Your task to perform on an android device: choose inbox layout in the gmail app Image 0: 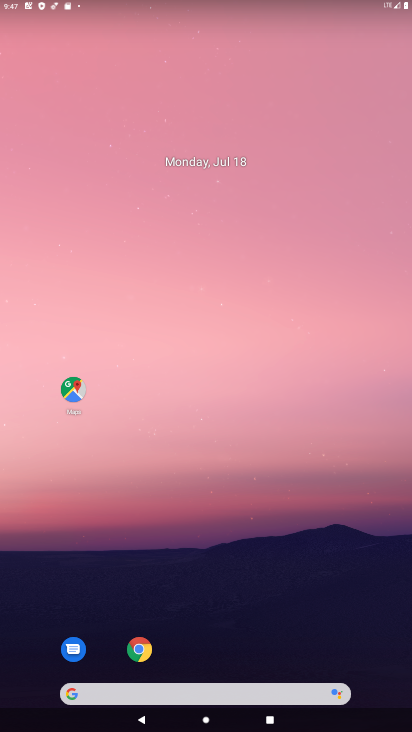
Step 0: drag from (213, 721) to (146, 83)
Your task to perform on an android device: choose inbox layout in the gmail app Image 1: 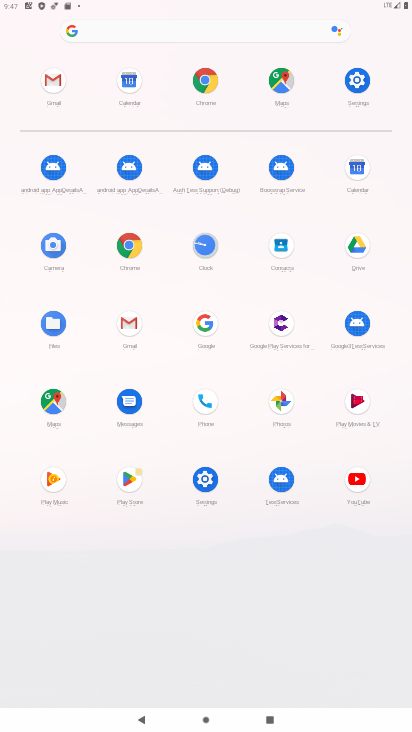
Step 1: click (54, 85)
Your task to perform on an android device: choose inbox layout in the gmail app Image 2: 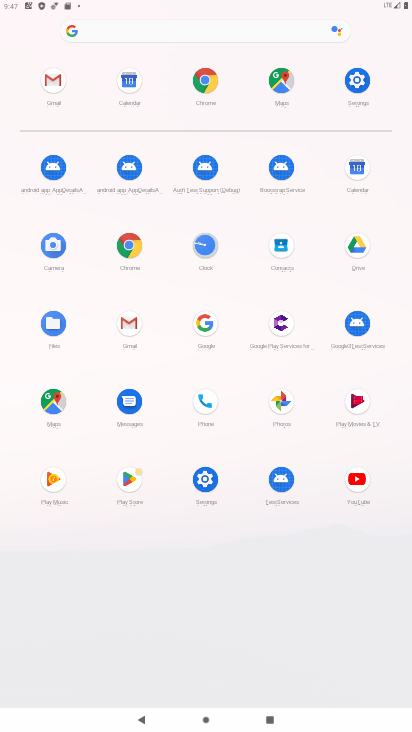
Step 2: click (54, 85)
Your task to perform on an android device: choose inbox layout in the gmail app Image 3: 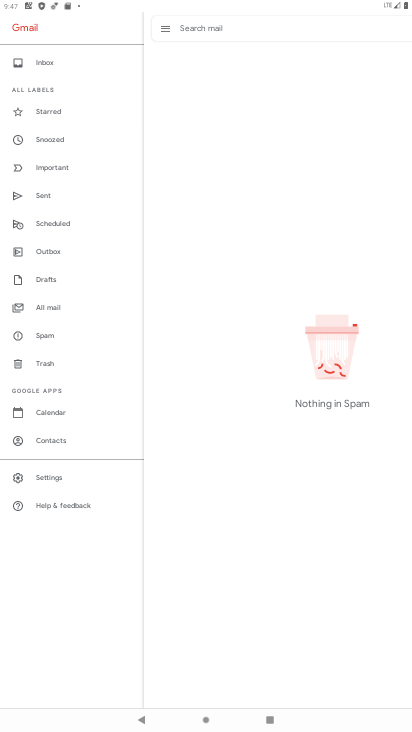
Step 3: click (51, 474)
Your task to perform on an android device: choose inbox layout in the gmail app Image 4: 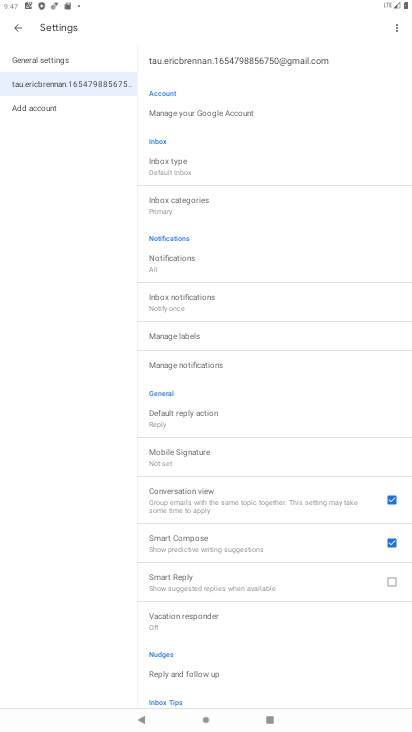
Step 4: click (173, 164)
Your task to perform on an android device: choose inbox layout in the gmail app Image 5: 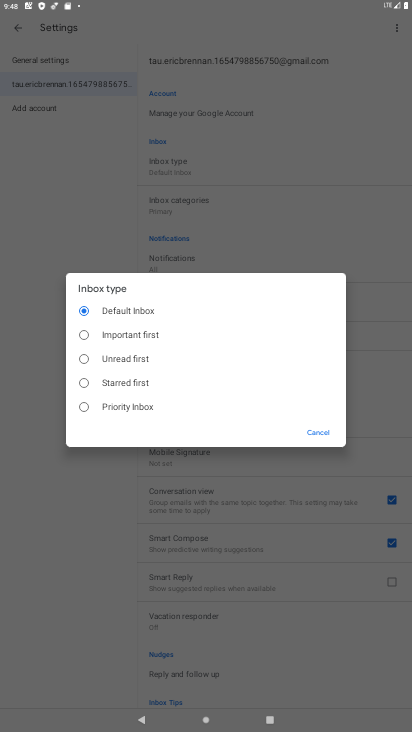
Step 5: click (118, 383)
Your task to perform on an android device: choose inbox layout in the gmail app Image 6: 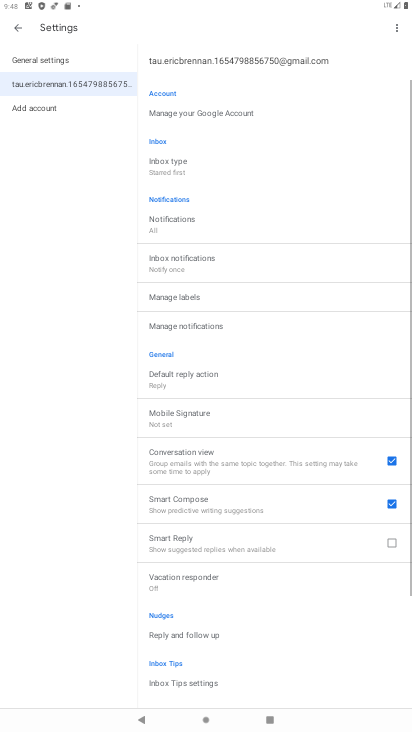
Step 6: click (118, 383)
Your task to perform on an android device: choose inbox layout in the gmail app Image 7: 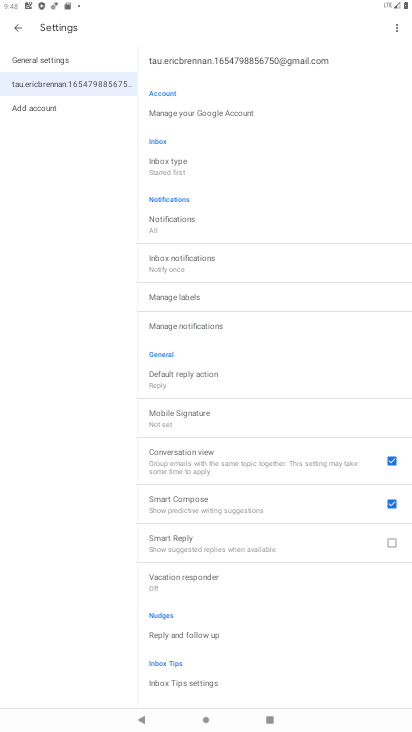
Step 7: task complete